Your task to perform on an android device: Open wifi settings Image 0: 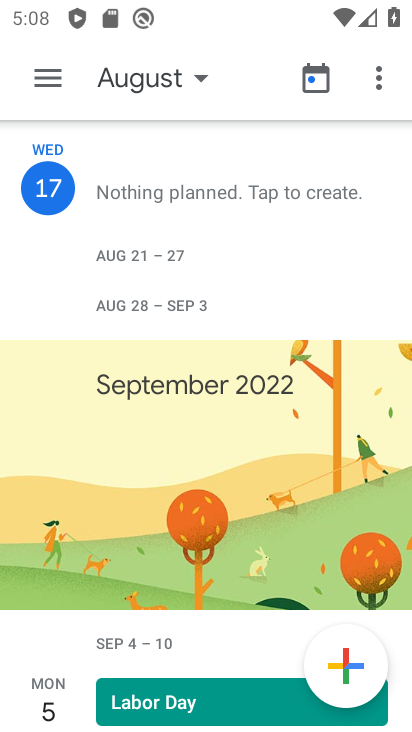
Step 0: press home button
Your task to perform on an android device: Open wifi settings Image 1: 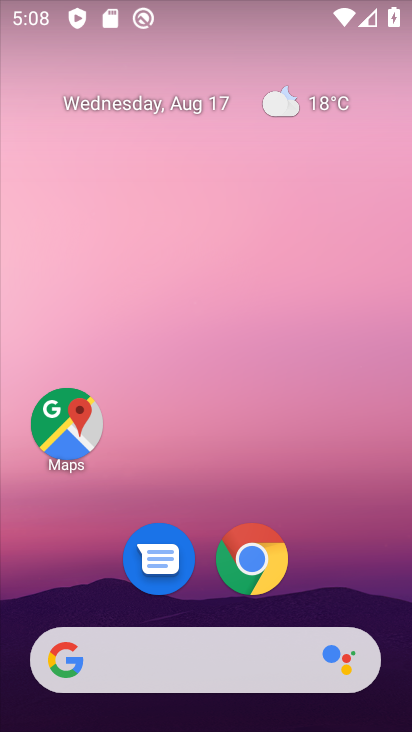
Step 1: drag from (209, 657) to (191, 164)
Your task to perform on an android device: Open wifi settings Image 2: 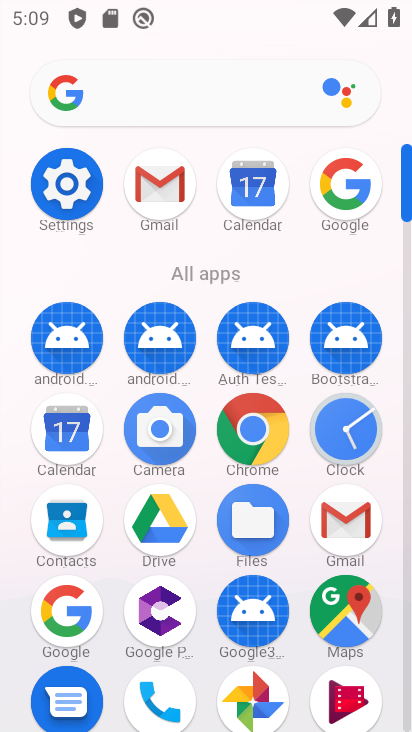
Step 2: click (54, 186)
Your task to perform on an android device: Open wifi settings Image 3: 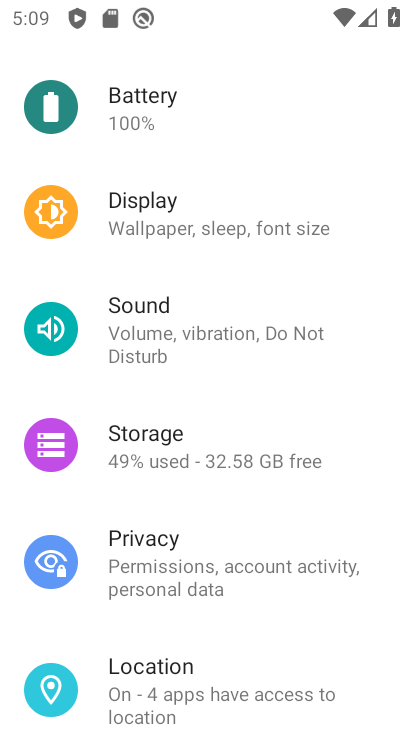
Step 3: drag from (204, 191) to (187, 594)
Your task to perform on an android device: Open wifi settings Image 4: 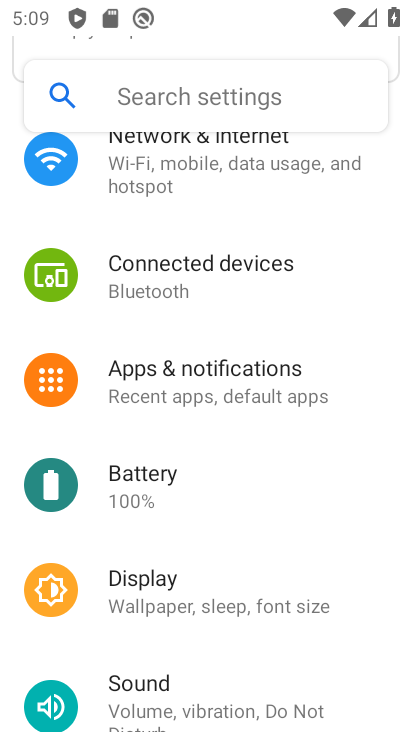
Step 4: drag from (194, 289) to (189, 657)
Your task to perform on an android device: Open wifi settings Image 5: 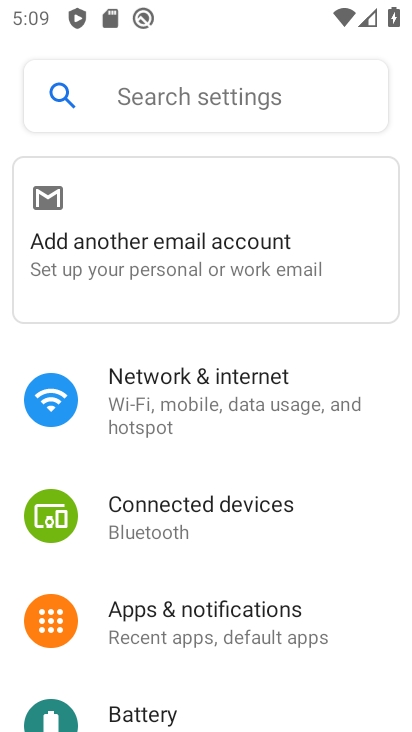
Step 5: click (183, 401)
Your task to perform on an android device: Open wifi settings Image 6: 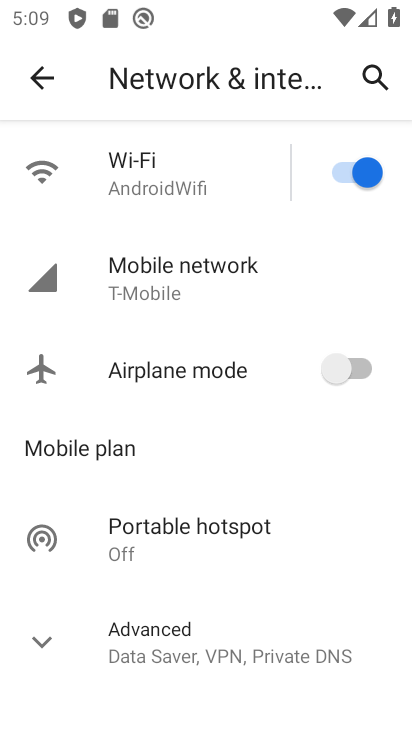
Step 6: click (183, 173)
Your task to perform on an android device: Open wifi settings Image 7: 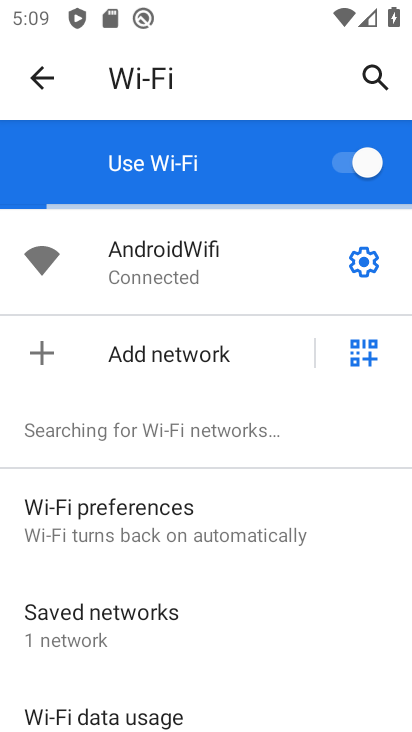
Step 7: task complete